Your task to perform on an android device: Show the shopping cart on costco. Add lg ultragear to the cart on costco Image 0: 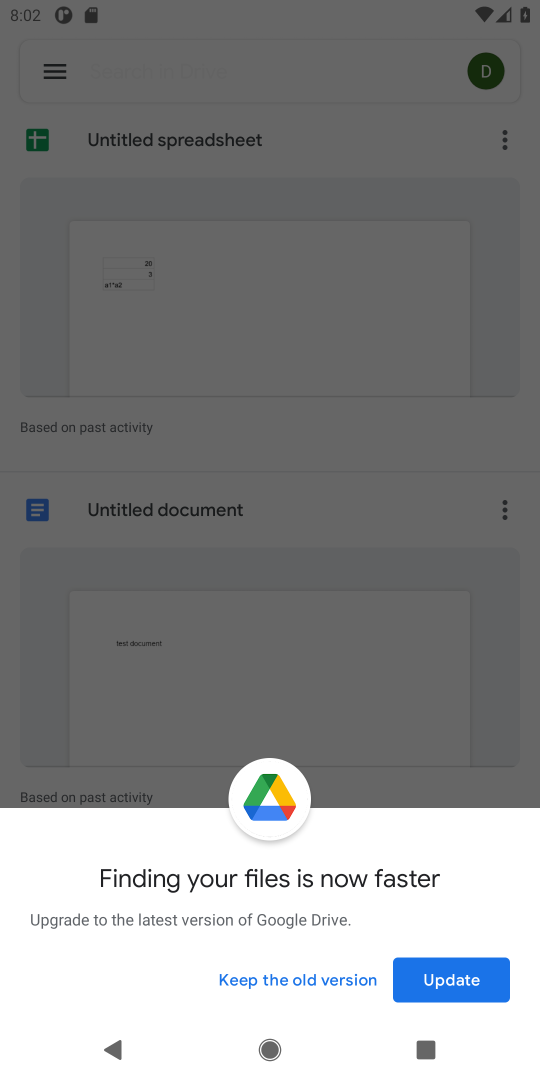
Step 0: press home button
Your task to perform on an android device: Show the shopping cart on costco. Add lg ultragear to the cart on costco Image 1: 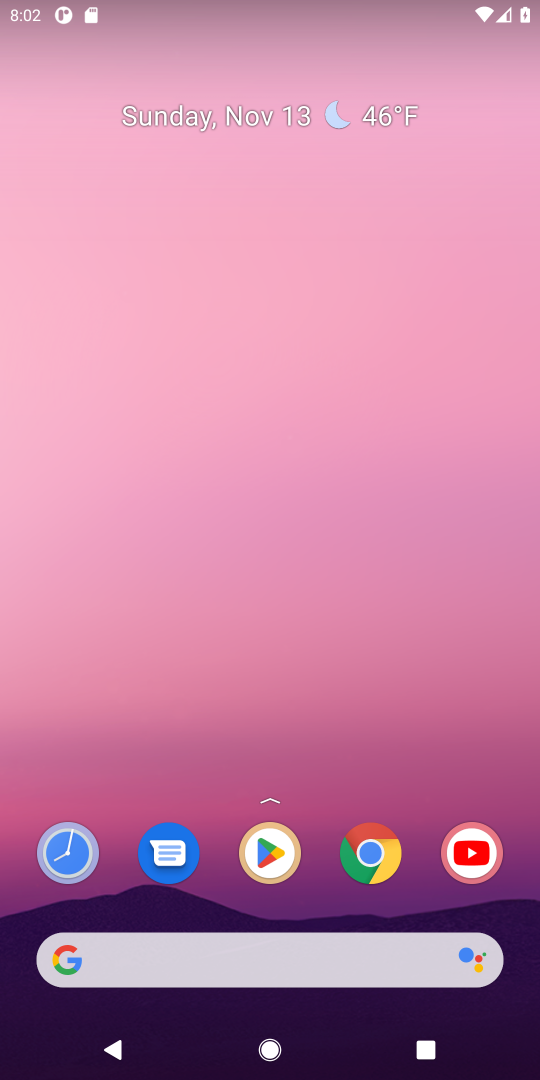
Step 1: click (112, 969)
Your task to perform on an android device: Show the shopping cart on costco. Add lg ultragear to the cart on costco Image 2: 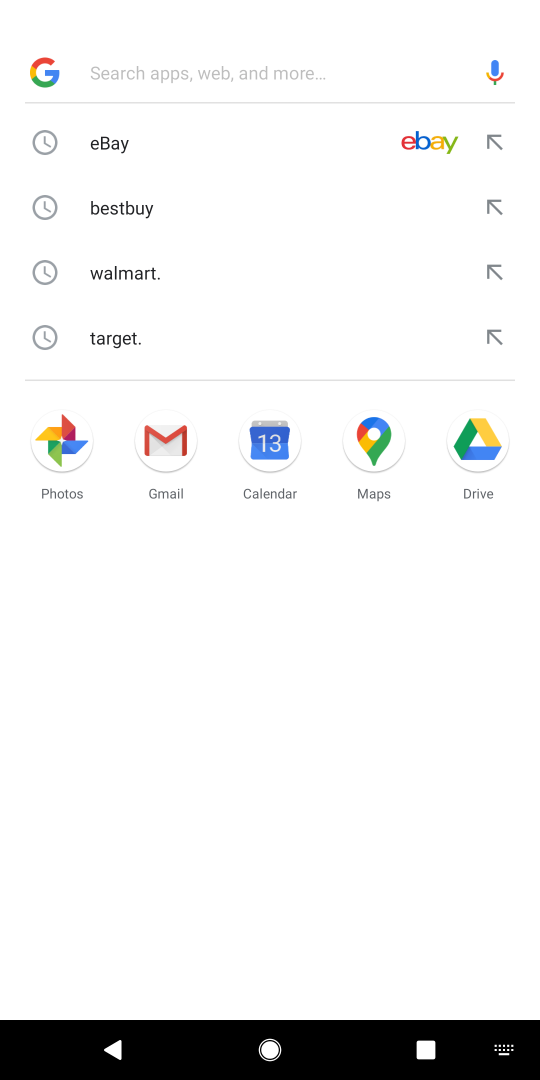
Step 2: type "costco"
Your task to perform on an android device: Show the shopping cart on costco. Add lg ultragear to the cart on costco Image 3: 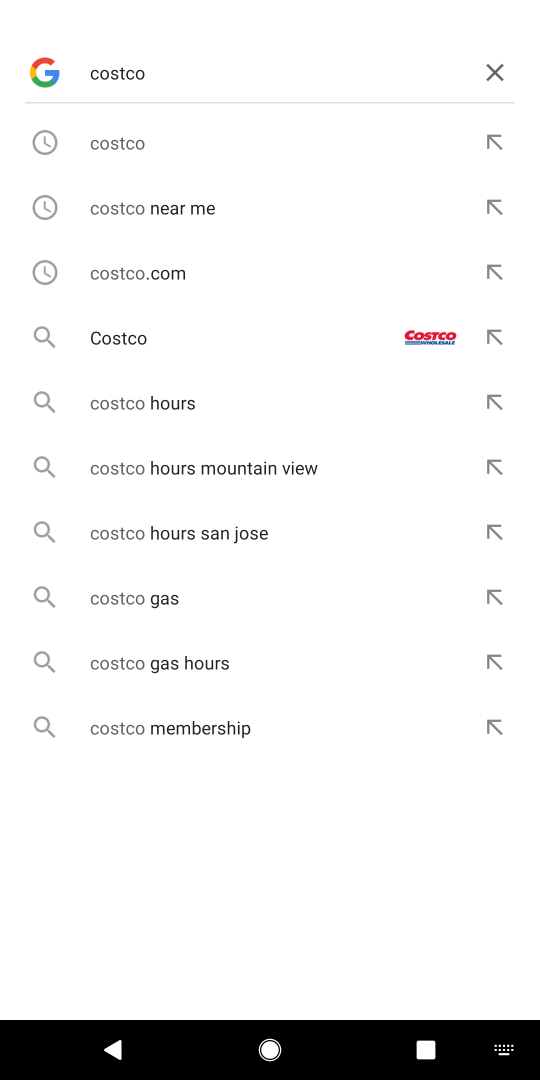
Step 3: press enter
Your task to perform on an android device: Show the shopping cart on costco. Add lg ultragear to the cart on costco Image 4: 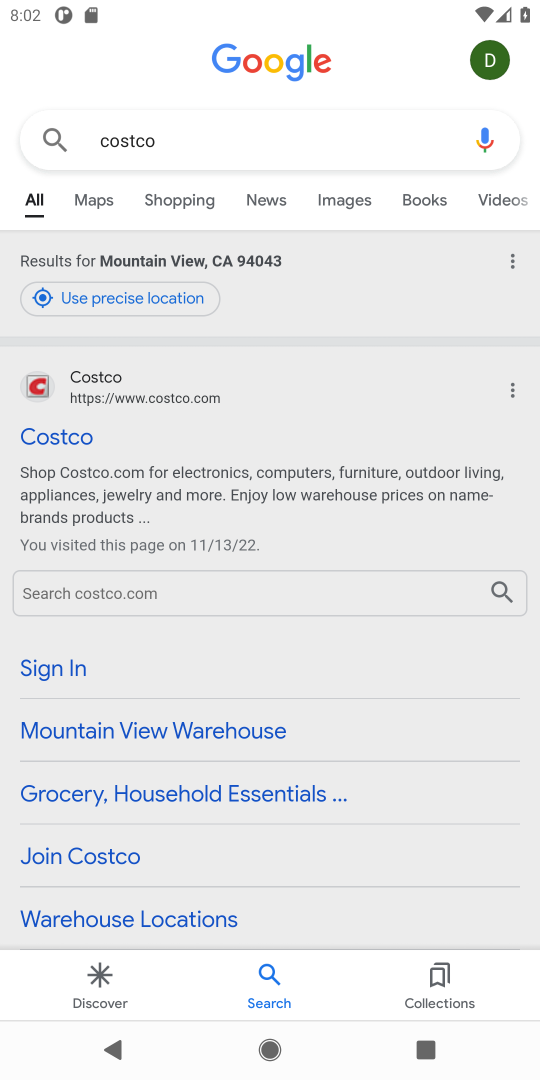
Step 4: click (55, 436)
Your task to perform on an android device: Show the shopping cart on costco. Add lg ultragear to the cart on costco Image 5: 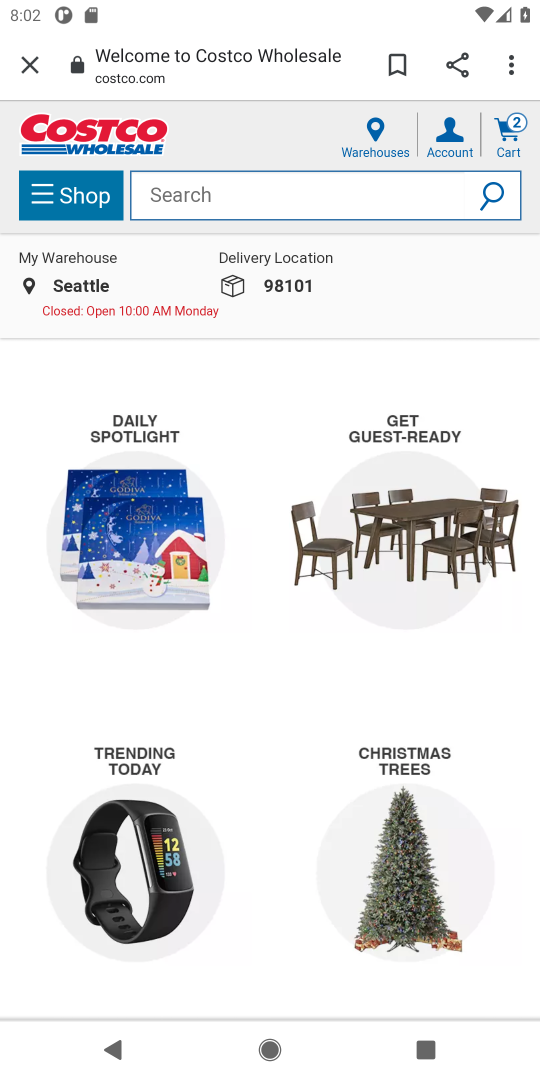
Step 5: click (508, 132)
Your task to perform on an android device: Show the shopping cart on costco. Add lg ultragear to the cart on costco Image 6: 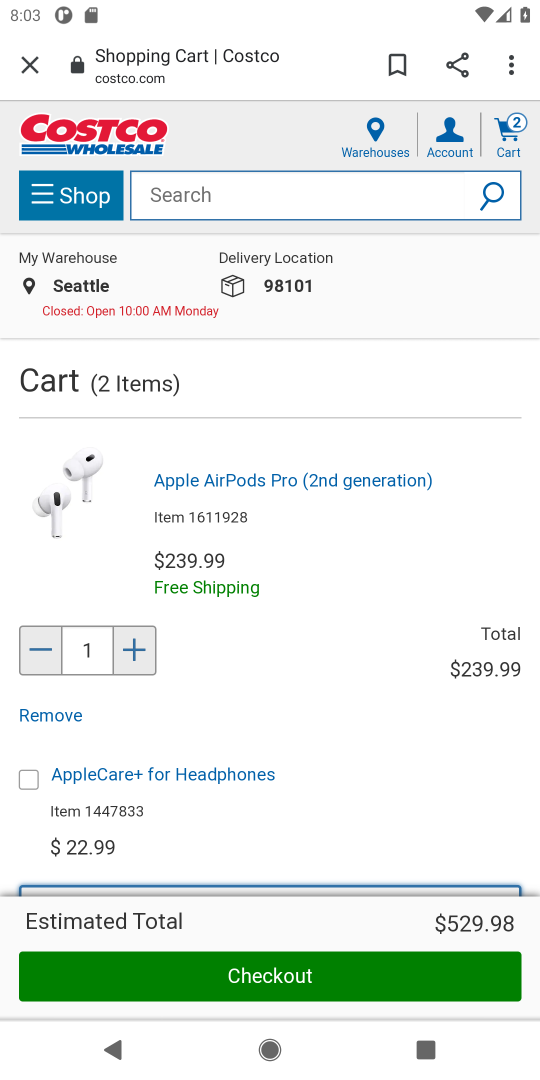
Step 6: click (170, 198)
Your task to perform on an android device: Show the shopping cart on costco. Add lg ultragear to the cart on costco Image 7: 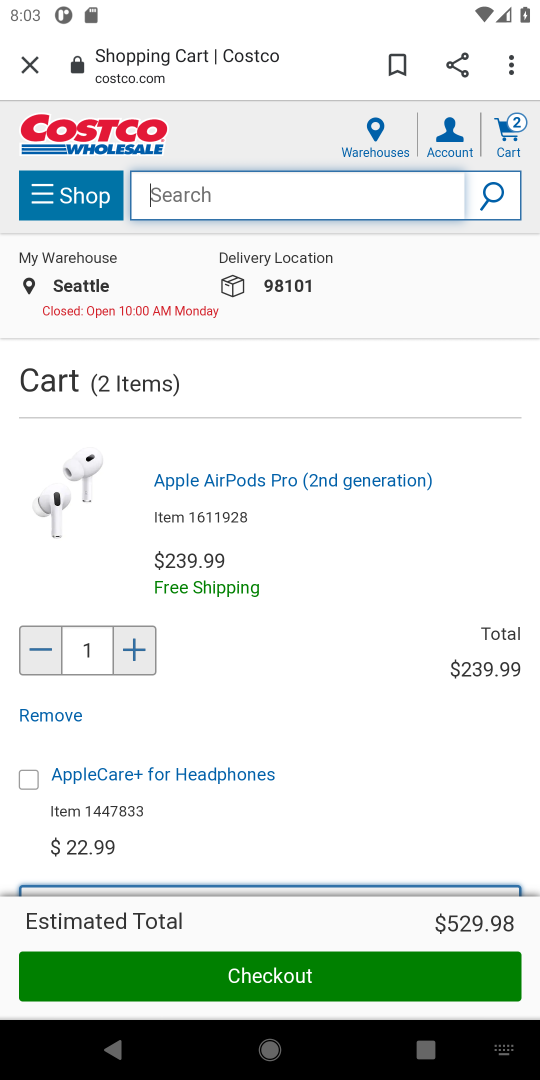
Step 7: type "lg ultragear "
Your task to perform on an android device: Show the shopping cart on costco. Add lg ultragear to the cart on costco Image 8: 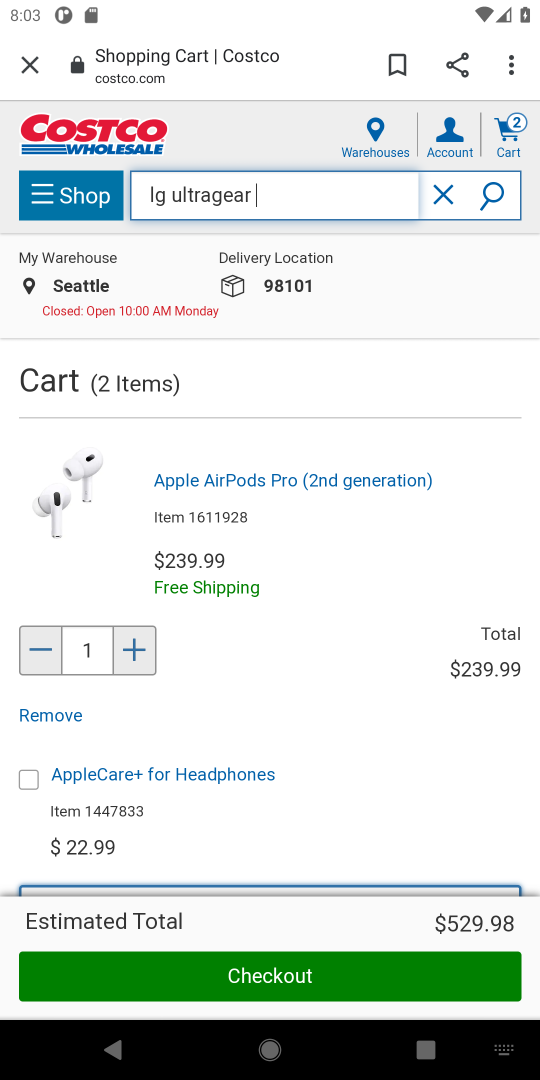
Step 8: press enter
Your task to perform on an android device: Show the shopping cart on costco. Add lg ultragear to the cart on costco Image 9: 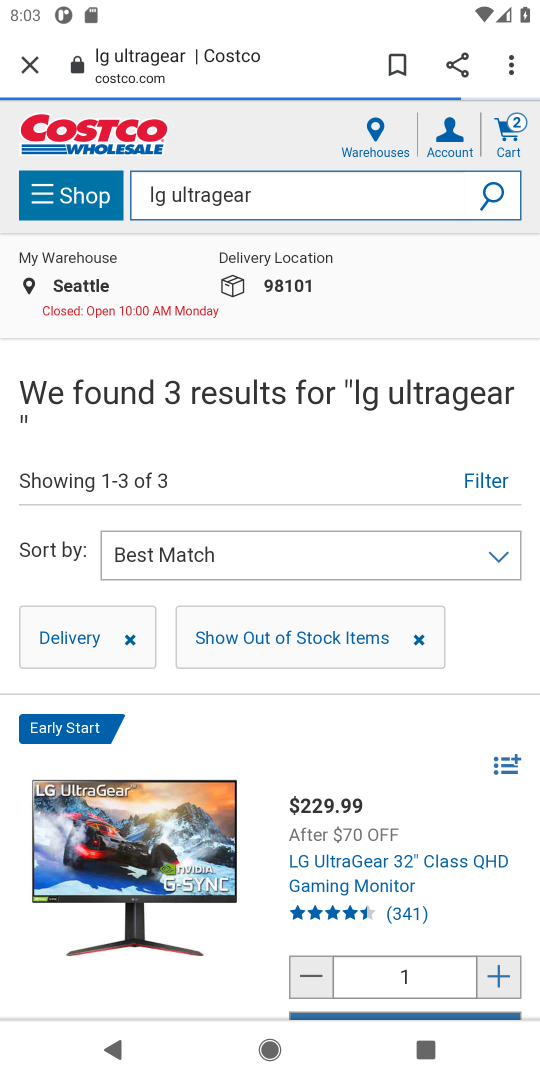
Step 9: drag from (342, 839) to (361, 411)
Your task to perform on an android device: Show the shopping cart on costco. Add lg ultragear to the cart on costco Image 10: 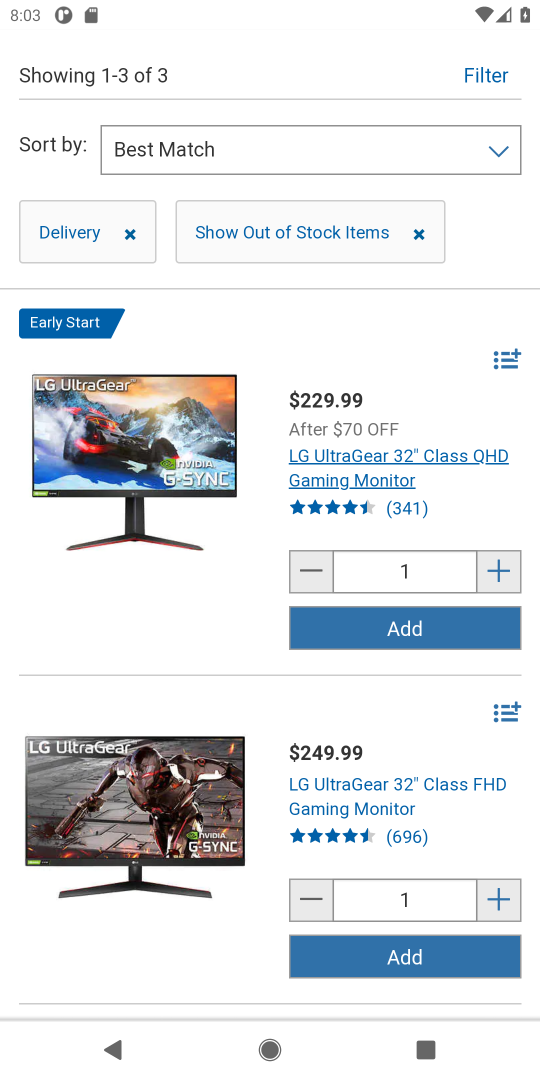
Step 10: click (413, 627)
Your task to perform on an android device: Show the shopping cart on costco. Add lg ultragear to the cart on costco Image 11: 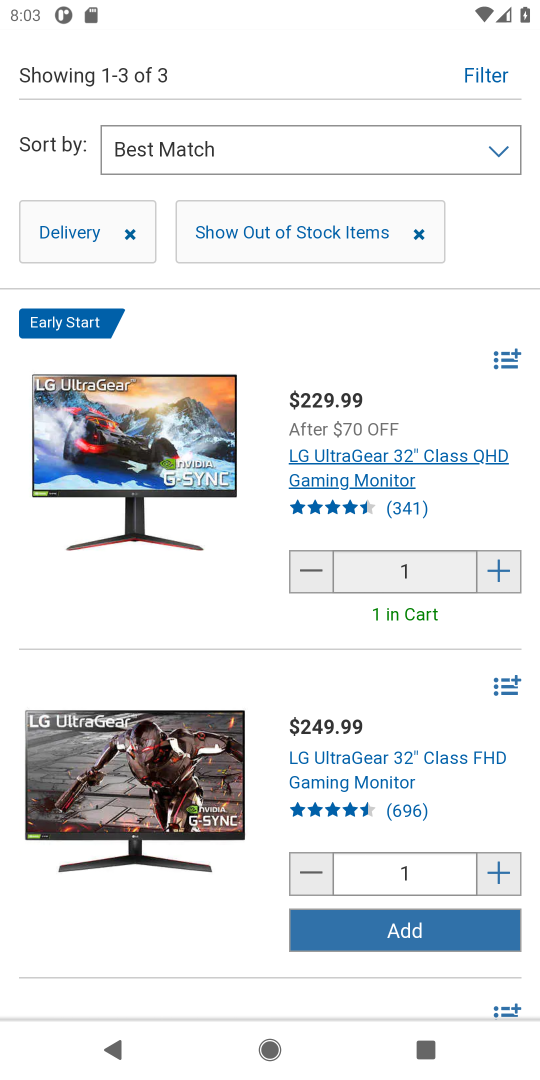
Step 11: task complete